Your task to perform on an android device: clear history in the chrome app Image 0: 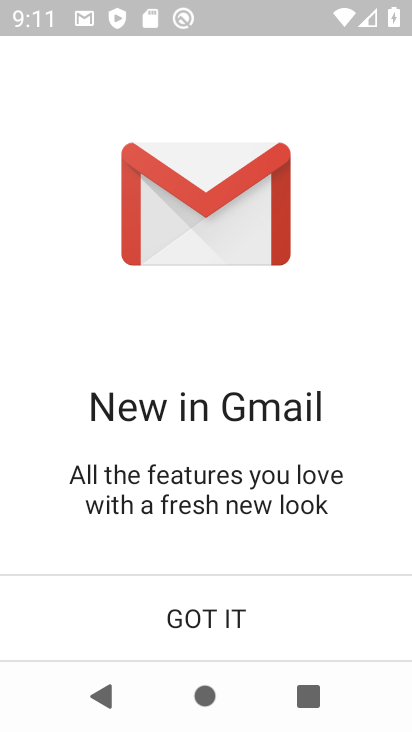
Step 0: press back button
Your task to perform on an android device: clear history in the chrome app Image 1: 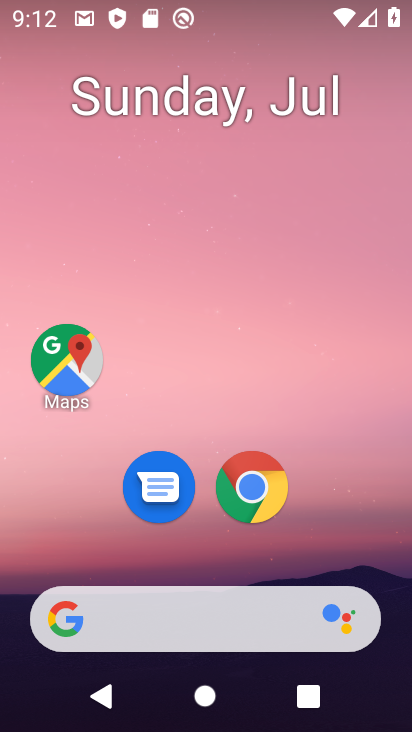
Step 1: click (250, 474)
Your task to perform on an android device: clear history in the chrome app Image 2: 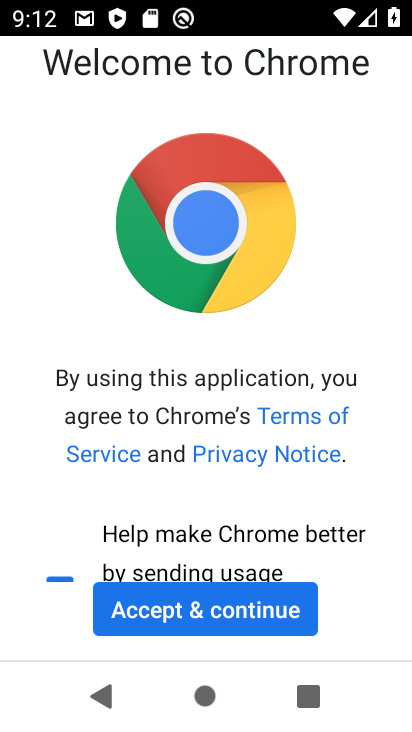
Step 2: click (183, 629)
Your task to perform on an android device: clear history in the chrome app Image 3: 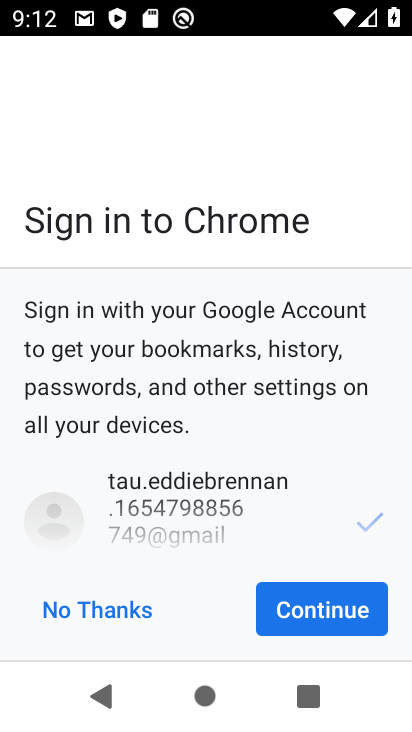
Step 3: click (331, 603)
Your task to perform on an android device: clear history in the chrome app Image 4: 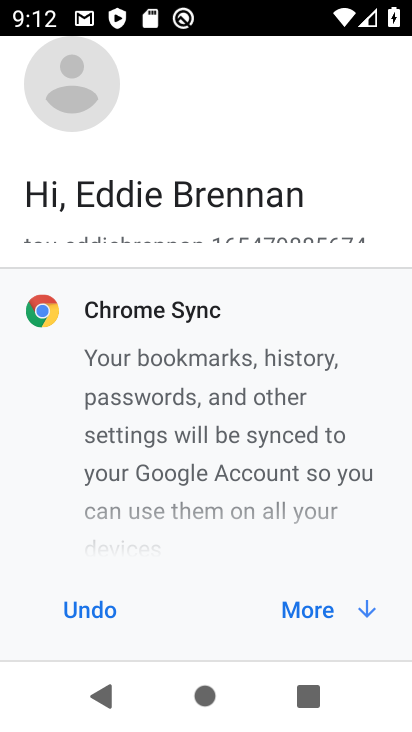
Step 4: click (326, 606)
Your task to perform on an android device: clear history in the chrome app Image 5: 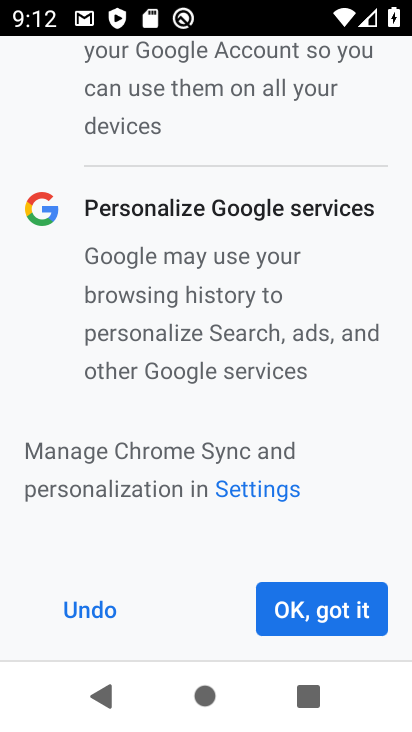
Step 5: click (326, 608)
Your task to perform on an android device: clear history in the chrome app Image 6: 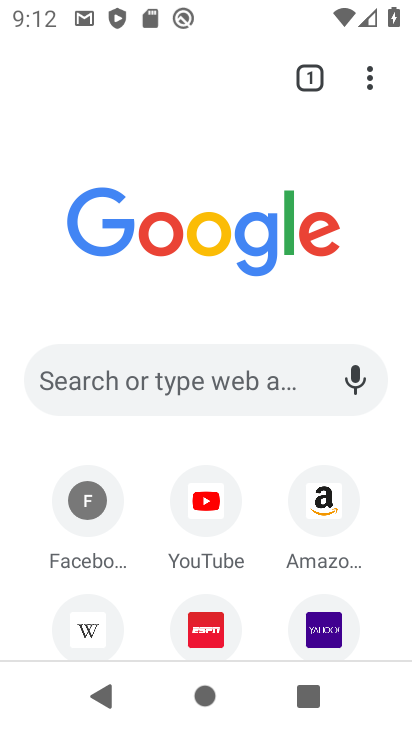
Step 6: drag from (375, 59) to (105, 444)
Your task to perform on an android device: clear history in the chrome app Image 7: 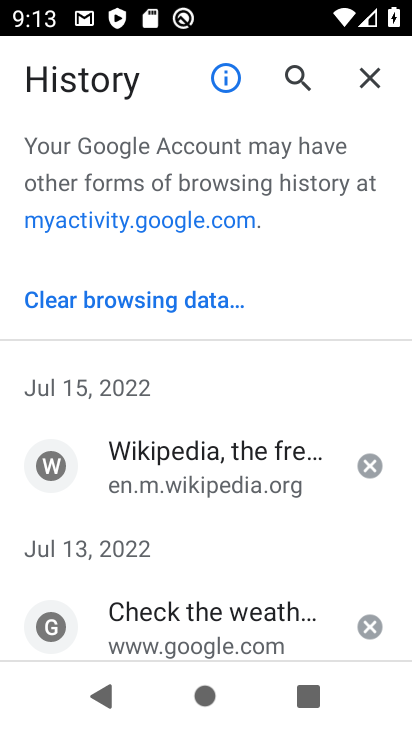
Step 7: click (148, 279)
Your task to perform on an android device: clear history in the chrome app Image 8: 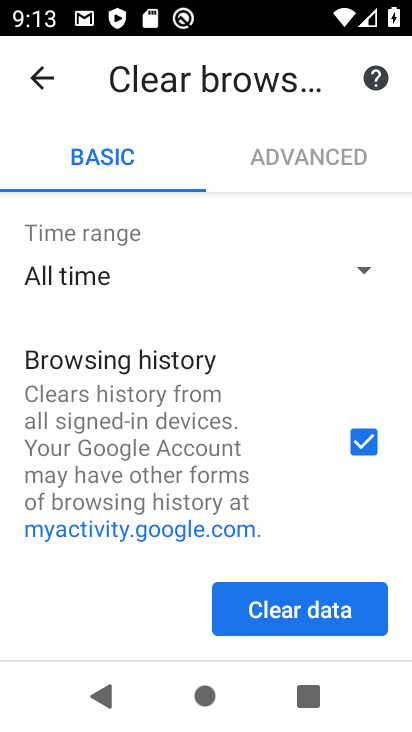
Step 8: drag from (197, 517) to (278, 22)
Your task to perform on an android device: clear history in the chrome app Image 9: 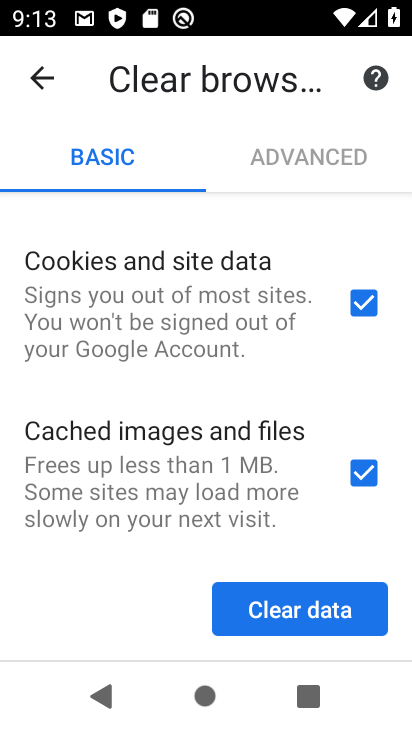
Step 9: click (274, 617)
Your task to perform on an android device: clear history in the chrome app Image 10: 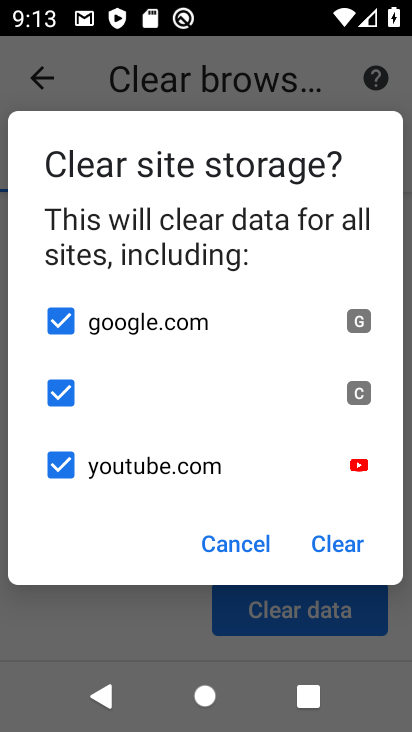
Step 10: click (365, 555)
Your task to perform on an android device: clear history in the chrome app Image 11: 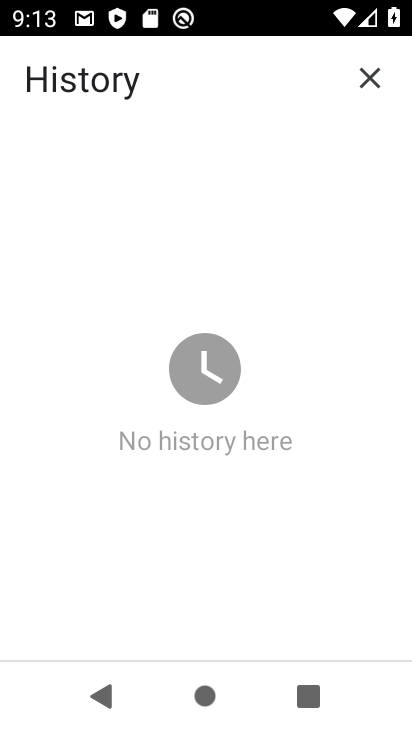
Step 11: task complete